Your task to perform on an android device: Clear all items from cart on newegg. Search for lenovo thinkpad on newegg, select the first entry, add it to the cart, then select checkout. Image 0: 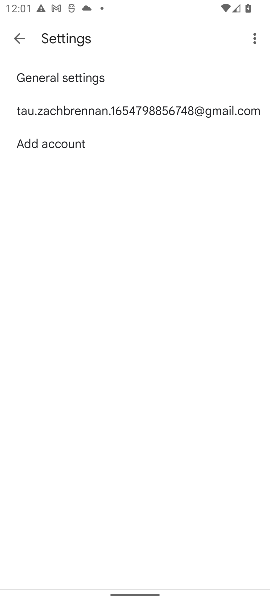
Step 0: press home button
Your task to perform on an android device: Clear all items from cart on newegg. Search for lenovo thinkpad on newegg, select the first entry, add it to the cart, then select checkout. Image 1: 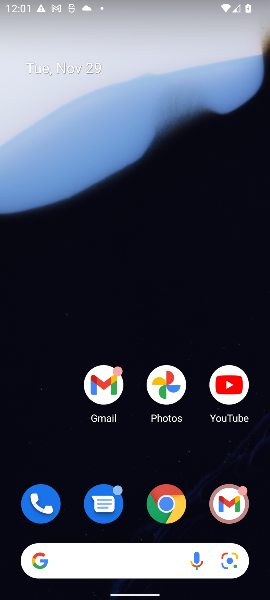
Step 1: click (167, 502)
Your task to perform on an android device: Clear all items from cart on newegg. Search for lenovo thinkpad on newegg, select the first entry, add it to the cart, then select checkout. Image 2: 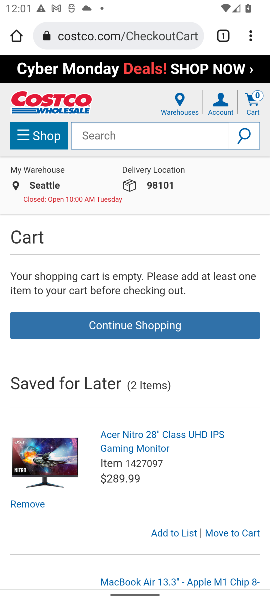
Step 2: click (103, 34)
Your task to perform on an android device: Clear all items from cart on newegg. Search for lenovo thinkpad on newegg, select the first entry, add it to the cart, then select checkout. Image 3: 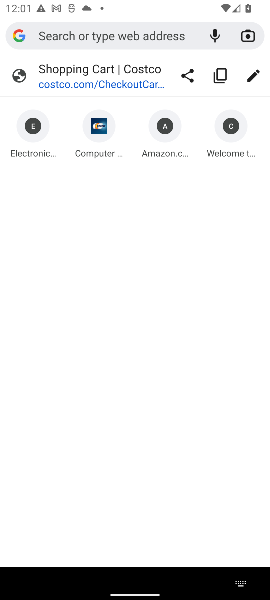
Step 3: click (97, 133)
Your task to perform on an android device: Clear all items from cart on newegg. Search for lenovo thinkpad on newegg, select the first entry, add it to the cart, then select checkout. Image 4: 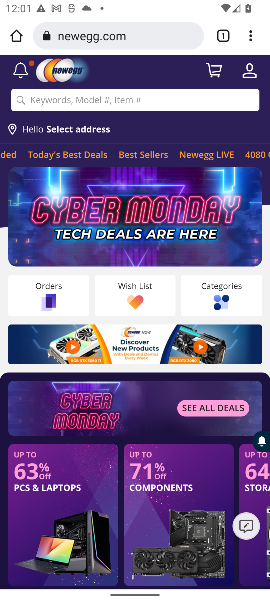
Step 4: click (212, 74)
Your task to perform on an android device: Clear all items from cart on newegg. Search for lenovo thinkpad on newegg, select the first entry, add it to the cart, then select checkout. Image 5: 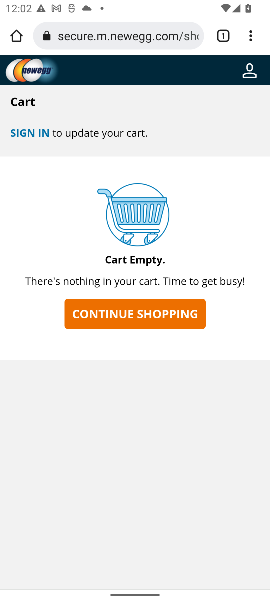
Step 5: click (120, 307)
Your task to perform on an android device: Clear all items from cart on newegg. Search for lenovo thinkpad on newegg, select the first entry, add it to the cart, then select checkout. Image 6: 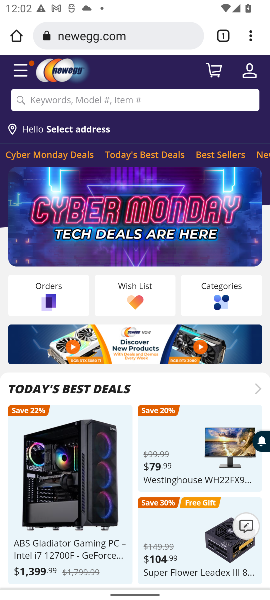
Step 6: click (71, 97)
Your task to perform on an android device: Clear all items from cart on newegg. Search for lenovo thinkpad on newegg, select the first entry, add it to the cart, then select checkout. Image 7: 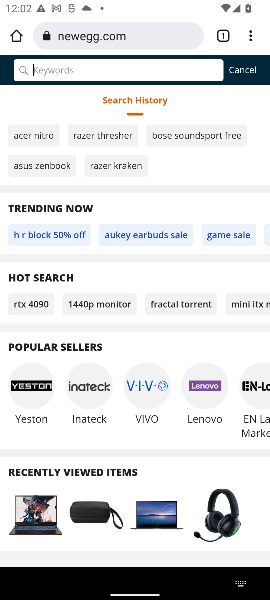
Step 7: type "lenovo thinkpad "
Your task to perform on an android device: Clear all items from cart on newegg. Search for lenovo thinkpad on newegg, select the first entry, add it to the cart, then select checkout. Image 8: 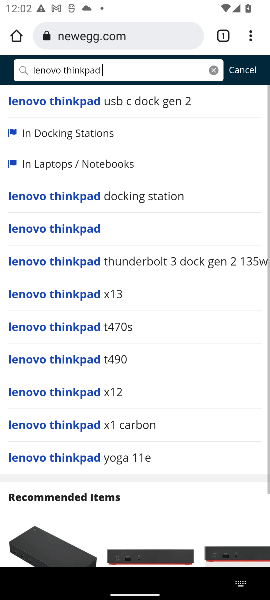
Step 8: click (51, 225)
Your task to perform on an android device: Clear all items from cart on newegg. Search for lenovo thinkpad on newegg, select the first entry, add it to the cart, then select checkout. Image 9: 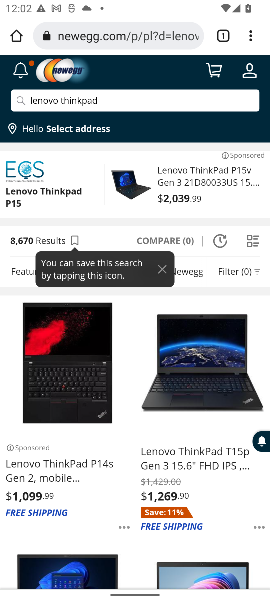
Step 9: click (59, 407)
Your task to perform on an android device: Clear all items from cart on newegg. Search for lenovo thinkpad on newegg, select the first entry, add it to the cart, then select checkout. Image 10: 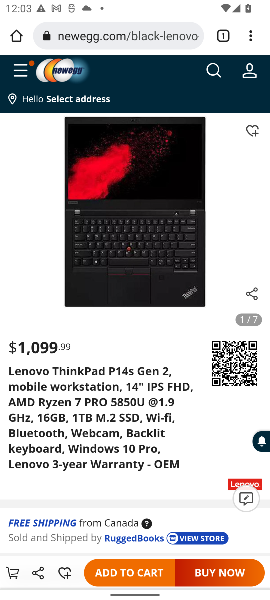
Step 10: click (120, 574)
Your task to perform on an android device: Clear all items from cart on newegg. Search for lenovo thinkpad on newegg, select the first entry, add it to the cart, then select checkout. Image 11: 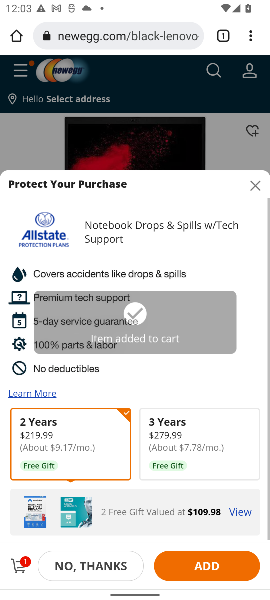
Step 11: click (69, 509)
Your task to perform on an android device: Clear all items from cart on newegg. Search for lenovo thinkpad on newegg, select the first entry, add it to the cart, then select checkout. Image 12: 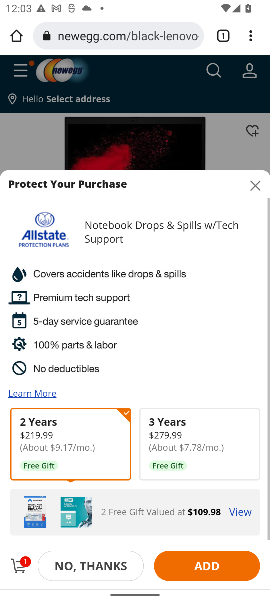
Step 12: click (16, 560)
Your task to perform on an android device: Clear all items from cart on newegg. Search for lenovo thinkpad on newegg, select the first entry, add it to the cart, then select checkout. Image 13: 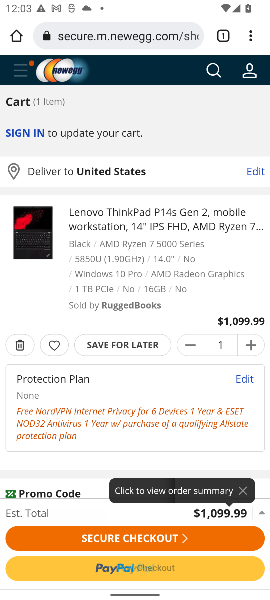
Step 13: click (103, 535)
Your task to perform on an android device: Clear all items from cart on newegg. Search for lenovo thinkpad on newegg, select the first entry, add it to the cart, then select checkout. Image 14: 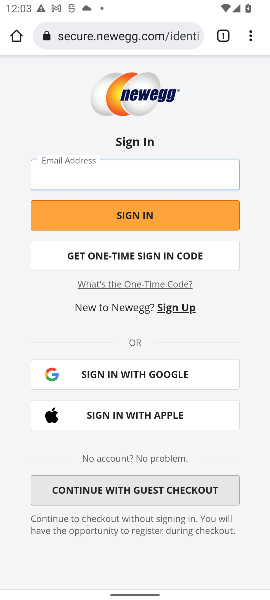
Step 14: task complete